Your task to perform on an android device: delete the emails in spam in the gmail app Image 0: 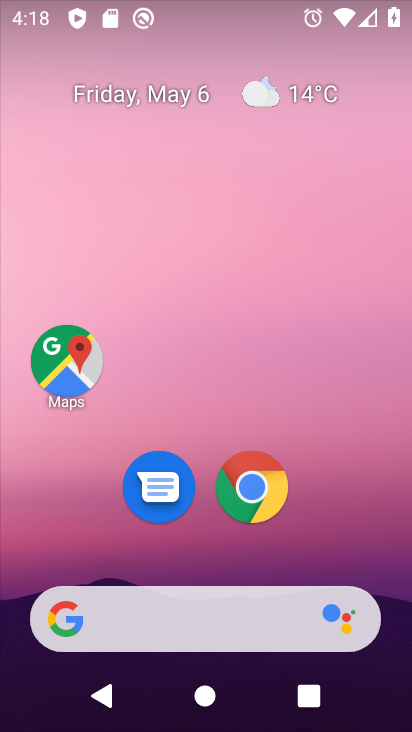
Step 0: drag from (246, 562) to (294, 80)
Your task to perform on an android device: delete the emails in spam in the gmail app Image 1: 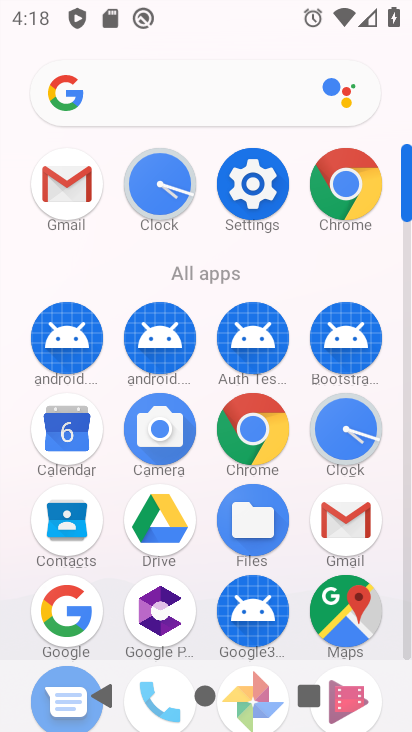
Step 1: click (360, 540)
Your task to perform on an android device: delete the emails in spam in the gmail app Image 2: 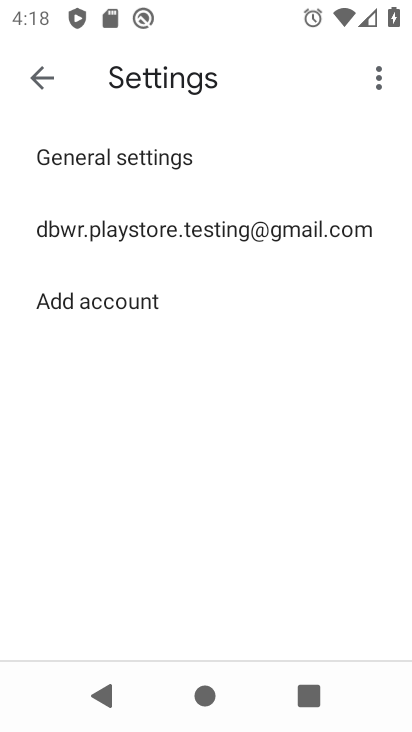
Step 2: click (47, 87)
Your task to perform on an android device: delete the emails in spam in the gmail app Image 3: 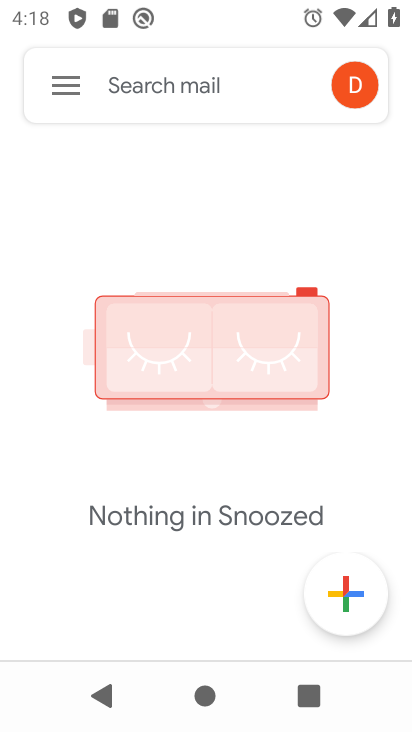
Step 3: click (47, 87)
Your task to perform on an android device: delete the emails in spam in the gmail app Image 4: 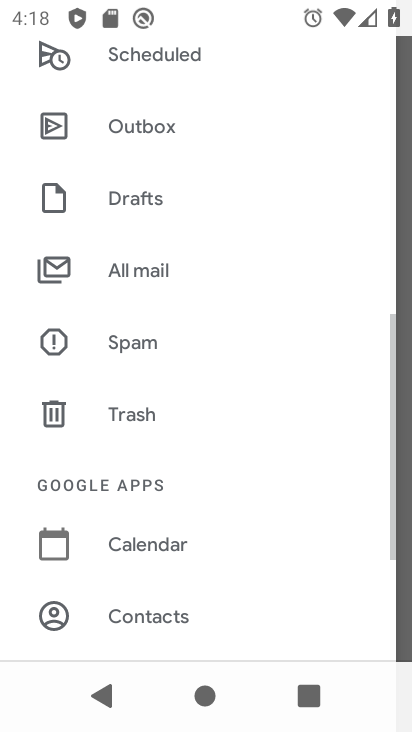
Step 4: click (100, 358)
Your task to perform on an android device: delete the emails in spam in the gmail app Image 5: 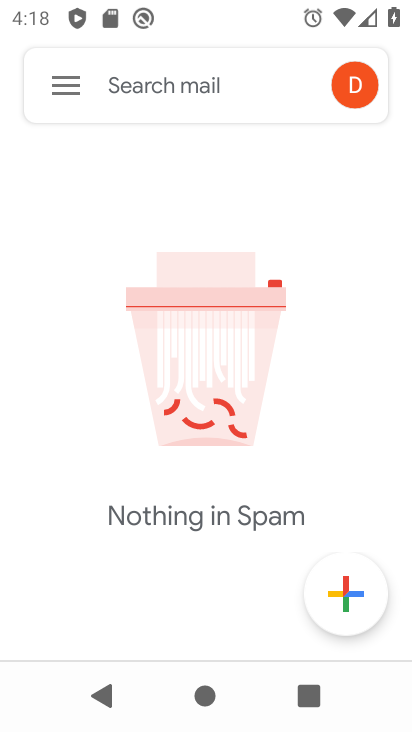
Step 5: task complete